Your task to perform on an android device: turn notification dots off Image 0: 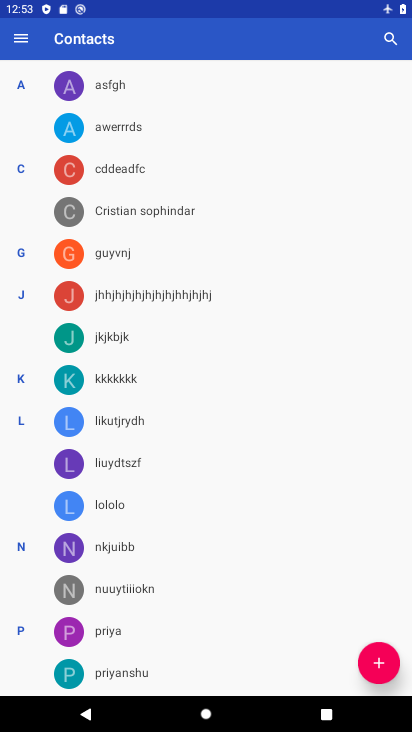
Step 0: press home button
Your task to perform on an android device: turn notification dots off Image 1: 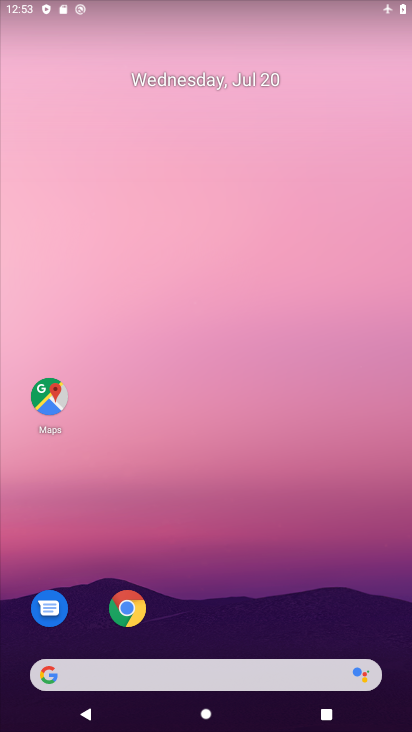
Step 1: drag from (213, 652) to (146, 163)
Your task to perform on an android device: turn notification dots off Image 2: 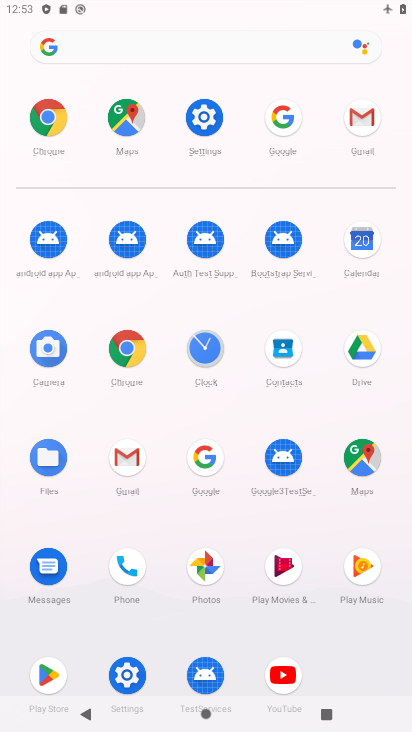
Step 2: click (204, 117)
Your task to perform on an android device: turn notification dots off Image 3: 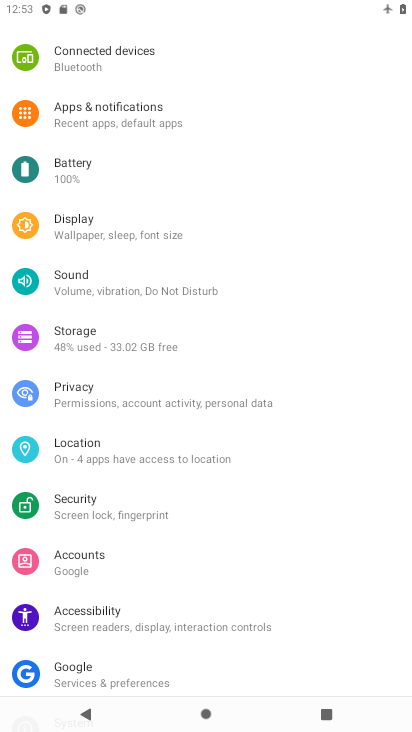
Step 3: click (96, 114)
Your task to perform on an android device: turn notification dots off Image 4: 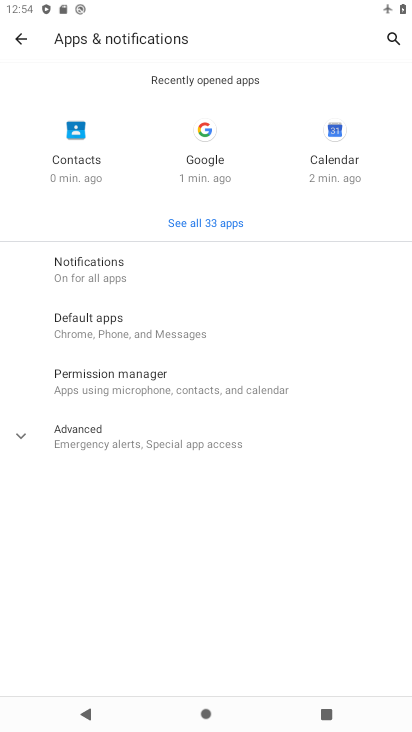
Step 4: click (95, 431)
Your task to perform on an android device: turn notification dots off Image 5: 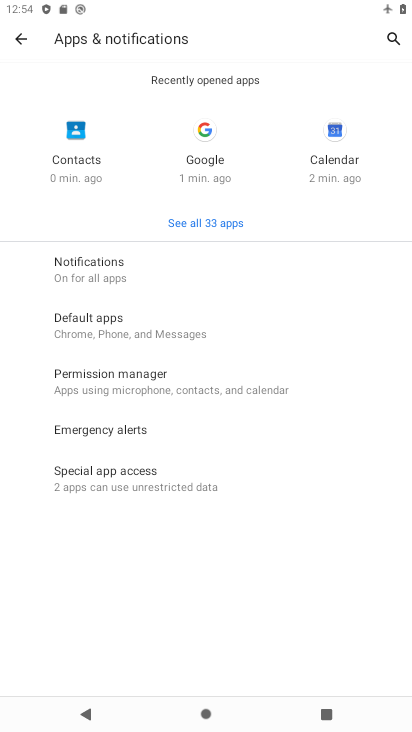
Step 5: click (99, 267)
Your task to perform on an android device: turn notification dots off Image 6: 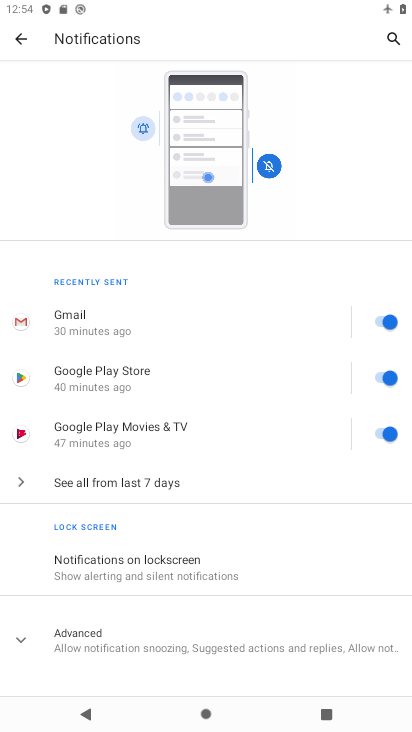
Step 6: click (148, 640)
Your task to perform on an android device: turn notification dots off Image 7: 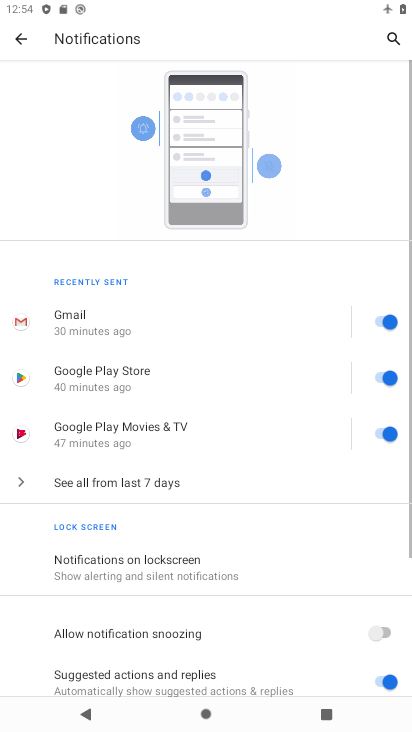
Step 7: task complete